Your task to perform on an android device: Open Maps and search for coffee Image 0: 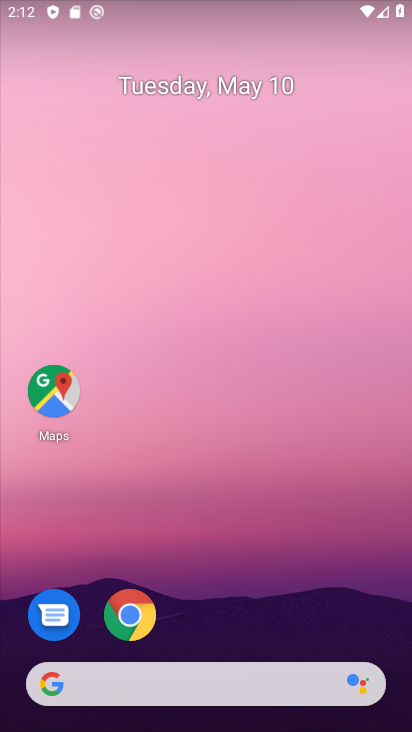
Step 0: drag from (336, 598) to (270, 4)
Your task to perform on an android device: Open Maps and search for coffee Image 1: 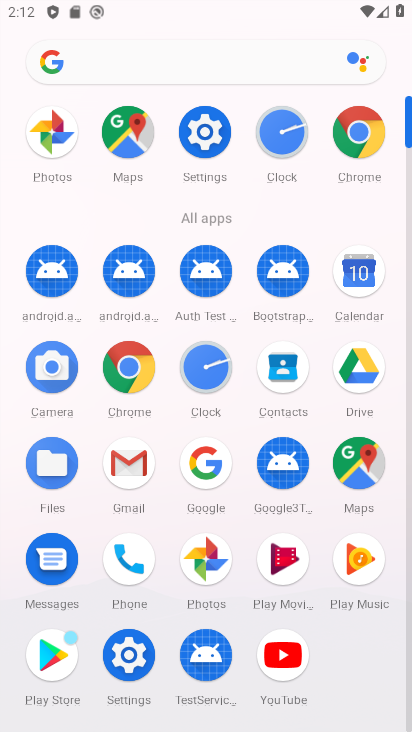
Step 1: click (119, 128)
Your task to perform on an android device: Open Maps and search for coffee Image 2: 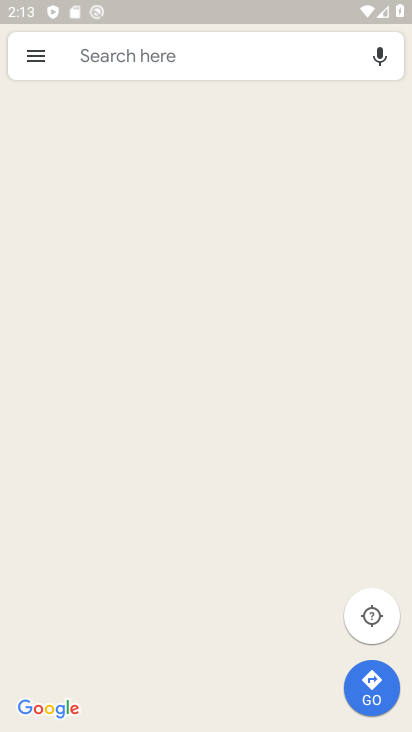
Step 2: click (116, 61)
Your task to perform on an android device: Open Maps and search for coffee Image 3: 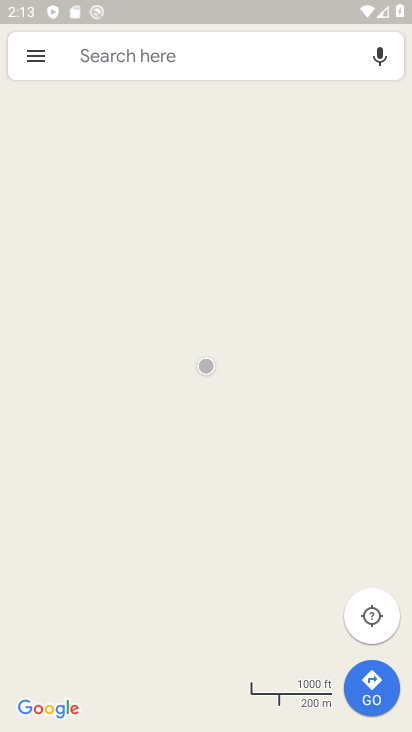
Step 3: click (116, 61)
Your task to perform on an android device: Open Maps and search for coffee Image 4: 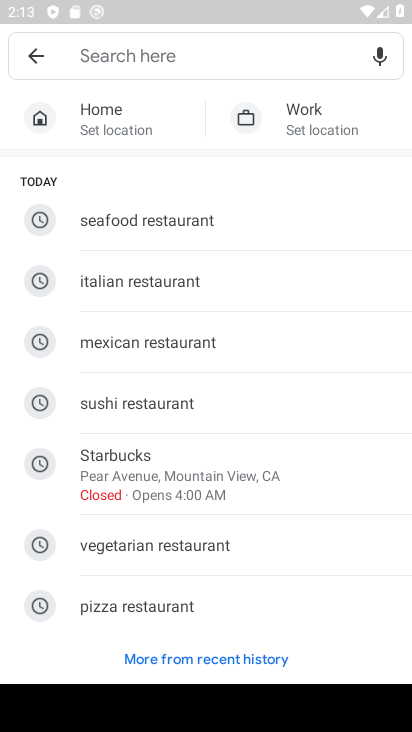
Step 4: type "coffee"
Your task to perform on an android device: Open Maps and search for coffee Image 5: 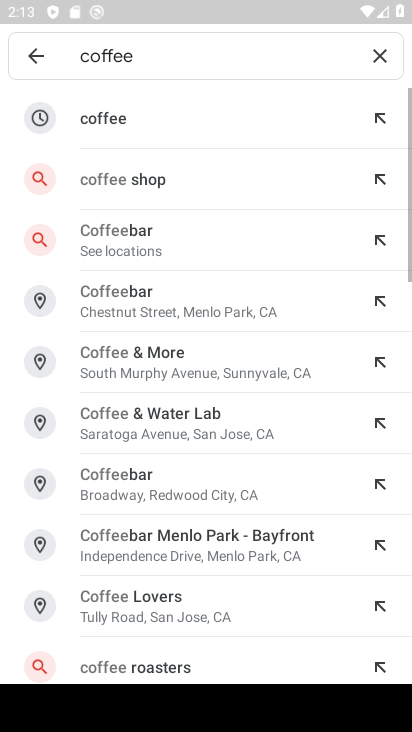
Step 5: click (118, 115)
Your task to perform on an android device: Open Maps and search for coffee Image 6: 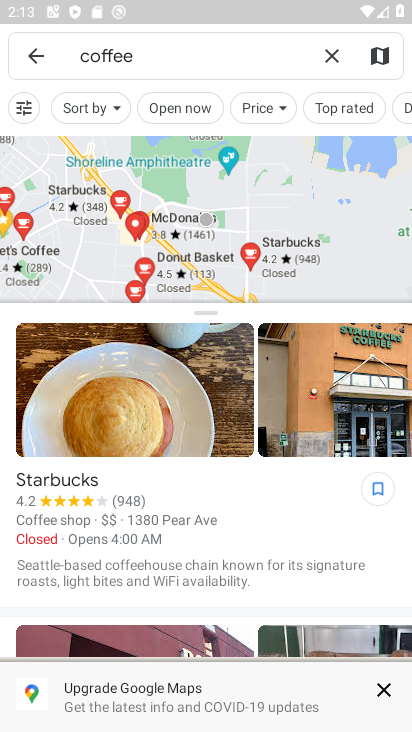
Step 6: task complete